Your task to perform on an android device: turn on wifi Image 0: 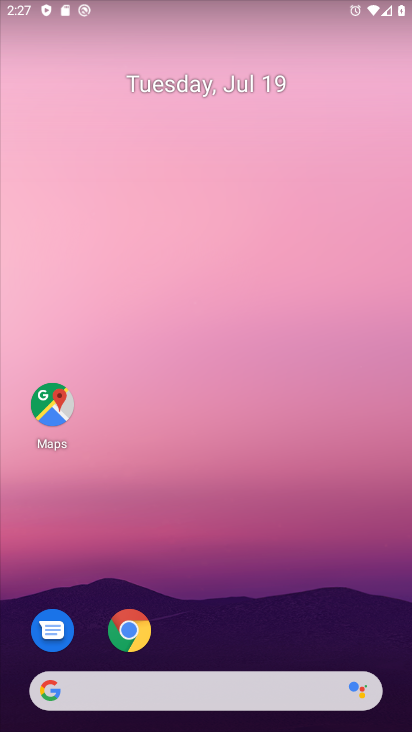
Step 0: click (259, 691)
Your task to perform on an android device: turn on wifi Image 1: 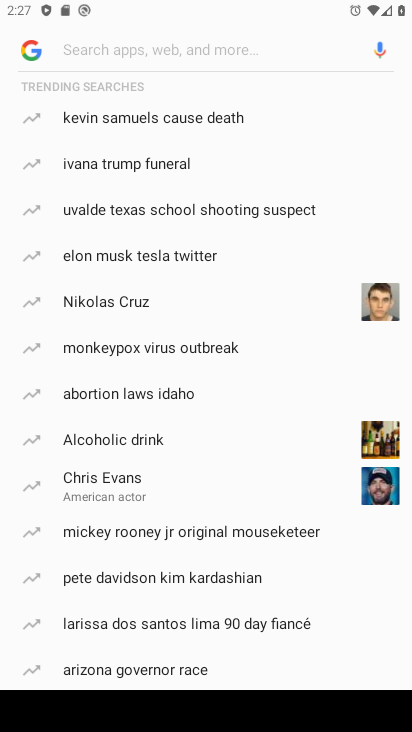
Step 1: press home button
Your task to perform on an android device: turn on wifi Image 2: 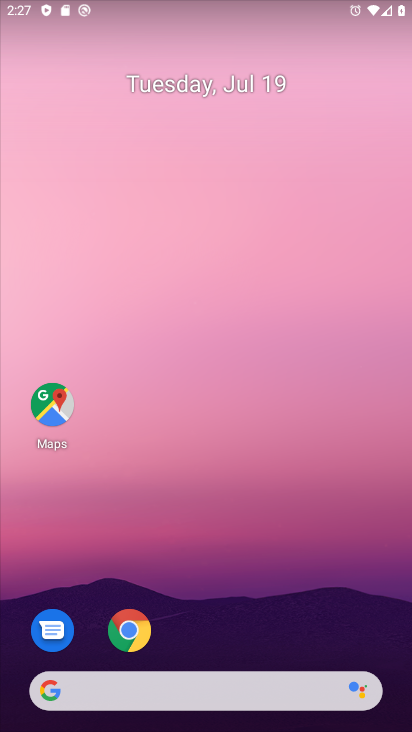
Step 2: drag from (269, 536) to (309, 0)
Your task to perform on an android device: turn on wifi Image 3: 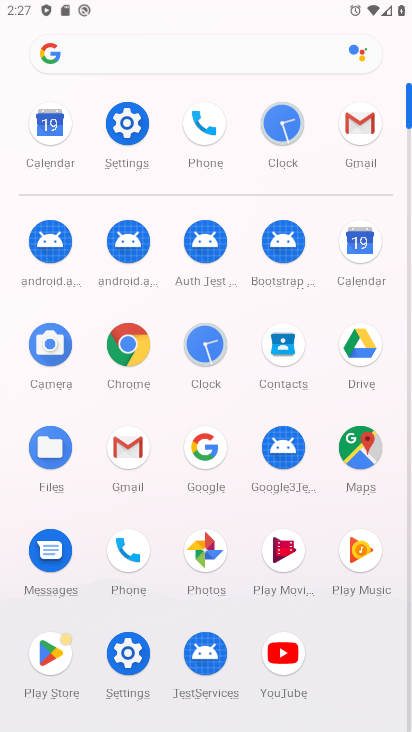
Step 3: click (127, 120)
Your task to perform on an android device: turn on wifi Image 4: 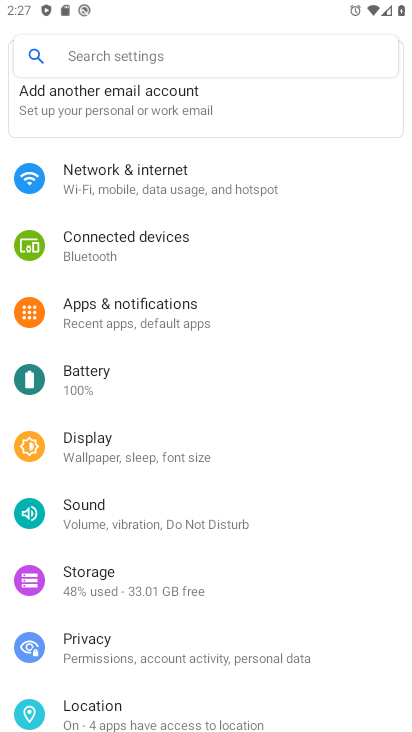
Step 4: click (212, 186)
Your task to perform on an android device: turn on wifi Image 5: 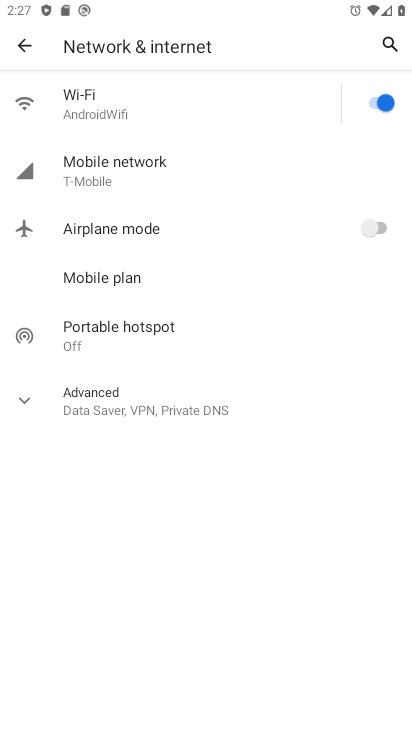
Step 5: task complete